Your task to perform on an android device: change timer sound Image 0: 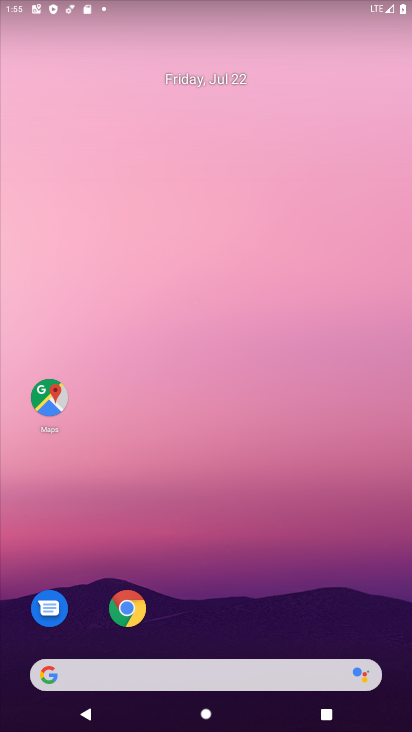
Step 0: drag from (379, 639) to (354, 167)
Your task to perform on an android device: change timer sound Image 1: 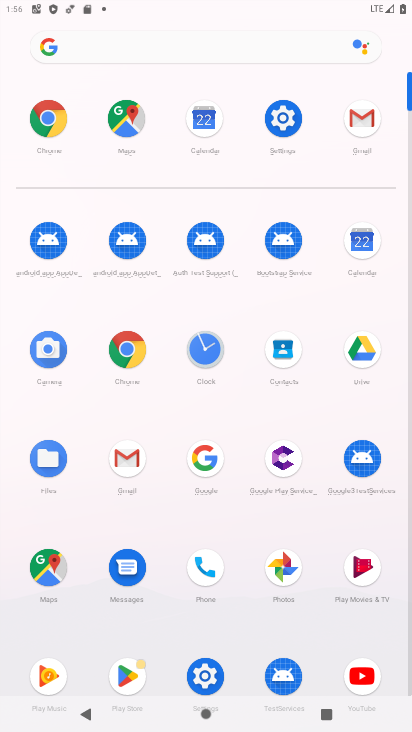
Step 1: click (211, 681)
Your task to perform on an android device: change timer sound Image 2: 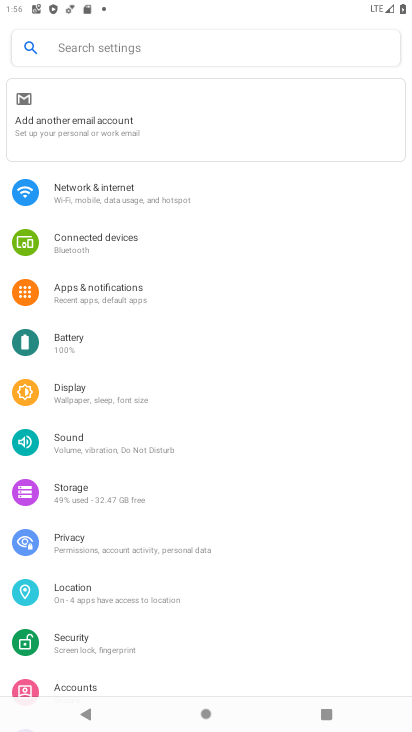
Step 2: click (73, 438)
Your task to perform on an android device: change timer sound Image 3: 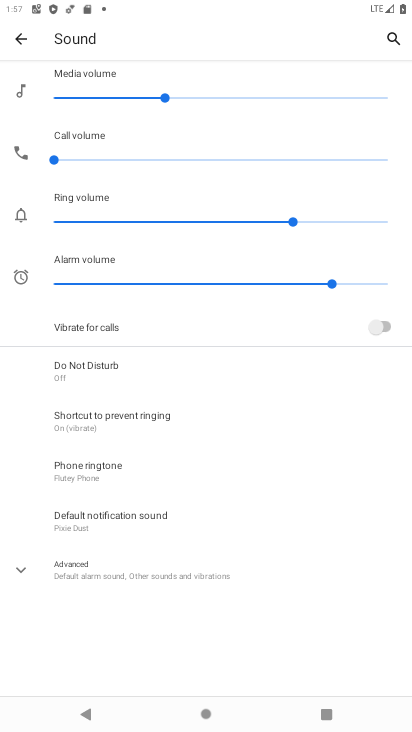
Step 3: task complete